Your task to perform on an android device: check out phone information Image 0: 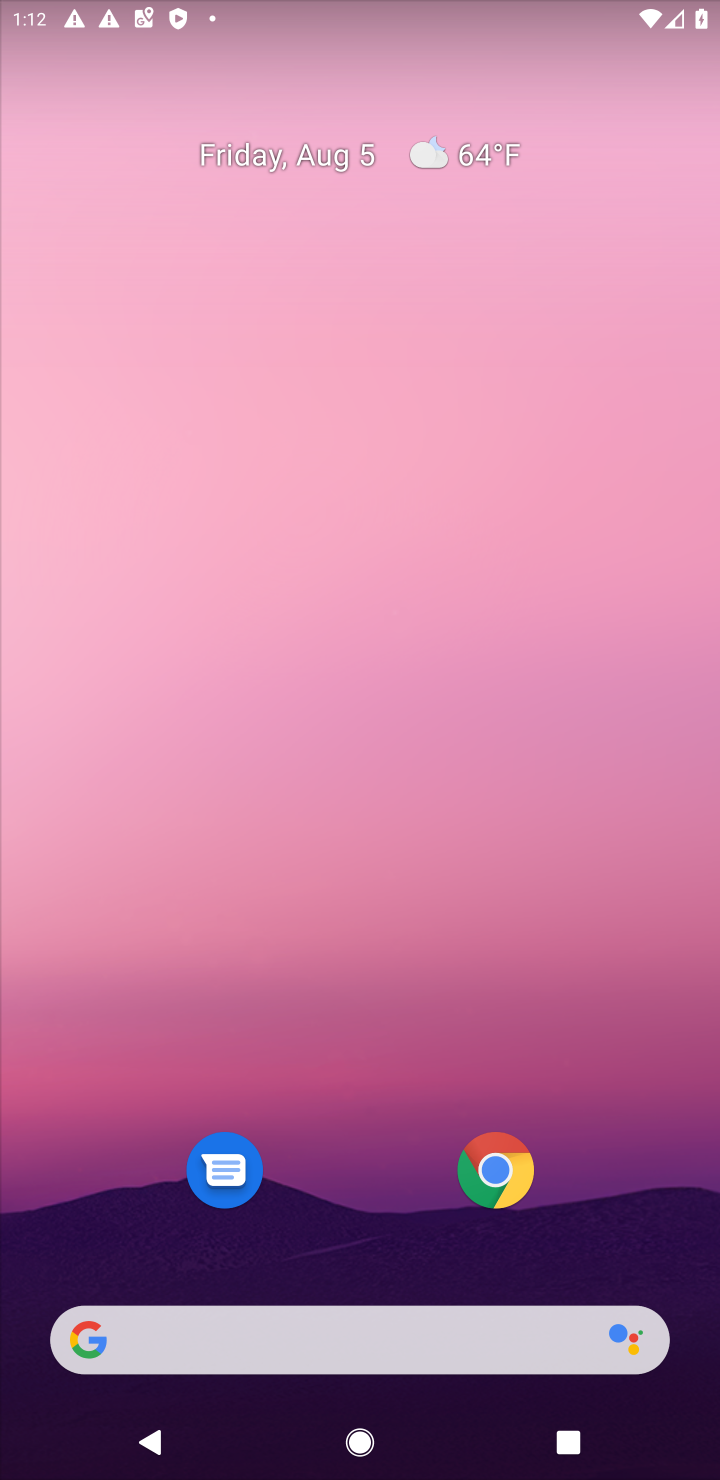
Step 0: drag from (295, 658) to (536, 181)
Your task to perform on an android device: check out phone information Image 1: 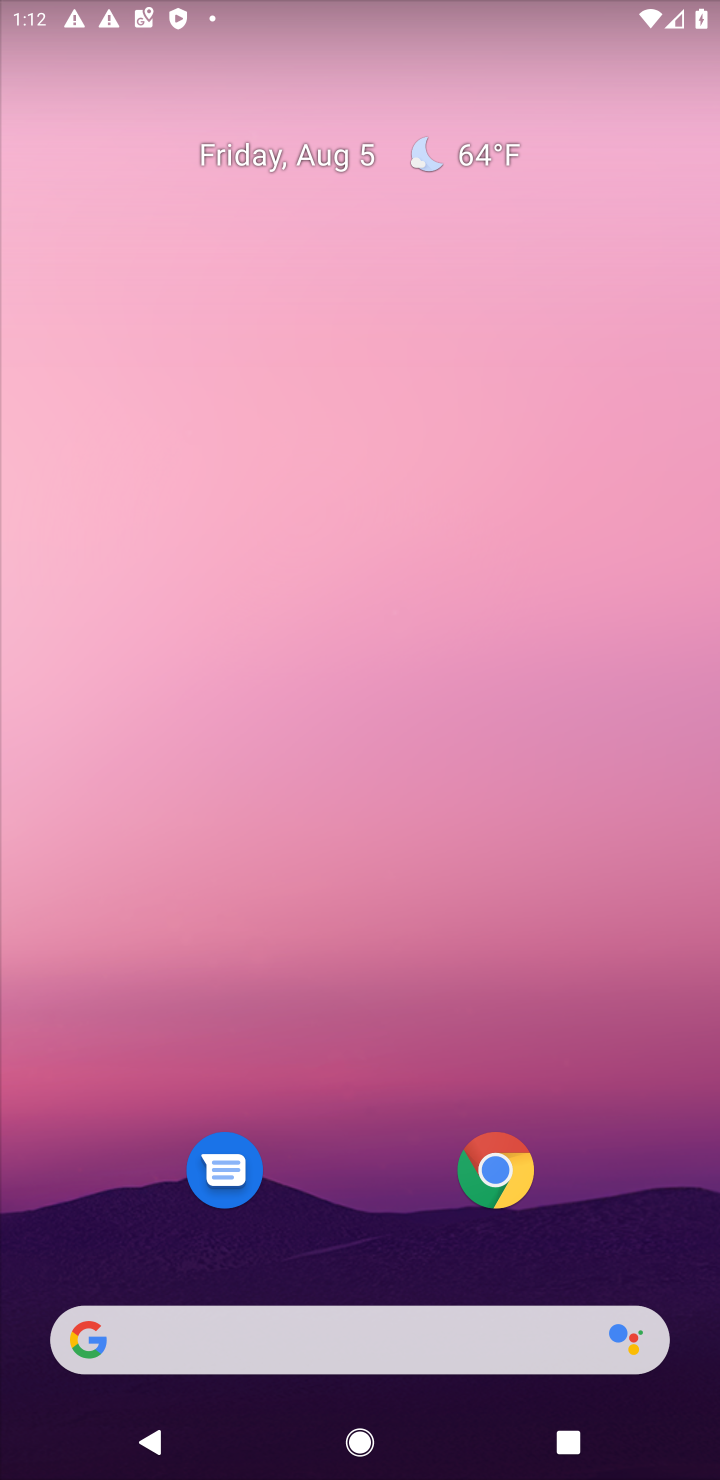
Step 1: drag from (51, 1172) to (499, 180)
Your task to perform on an android device: check out phone information Image 2: 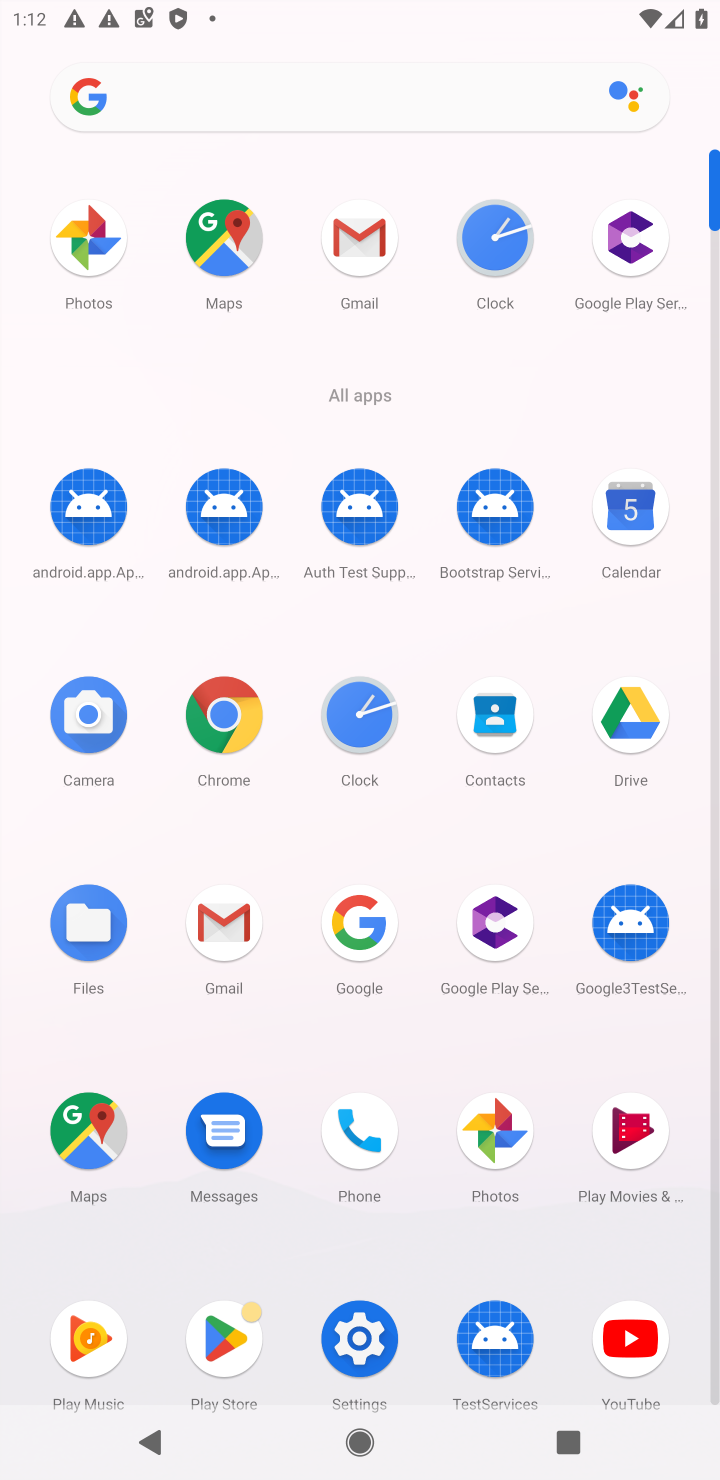
Step 2: click (372, 1145)
Your task to perform on an android device: check out phone information Image 3: 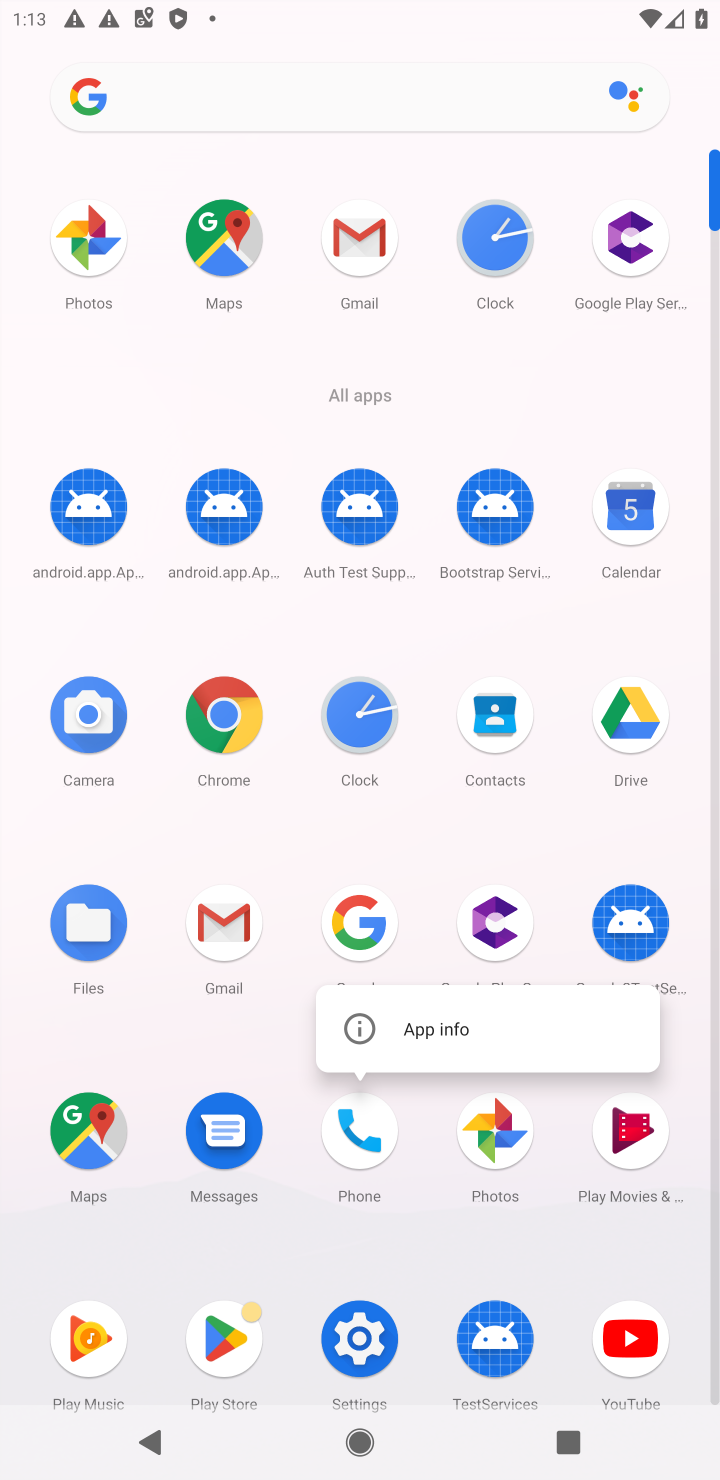
Step 3: click (341, 1126)
Your task to perform on an android device: check out phone information Image 4: 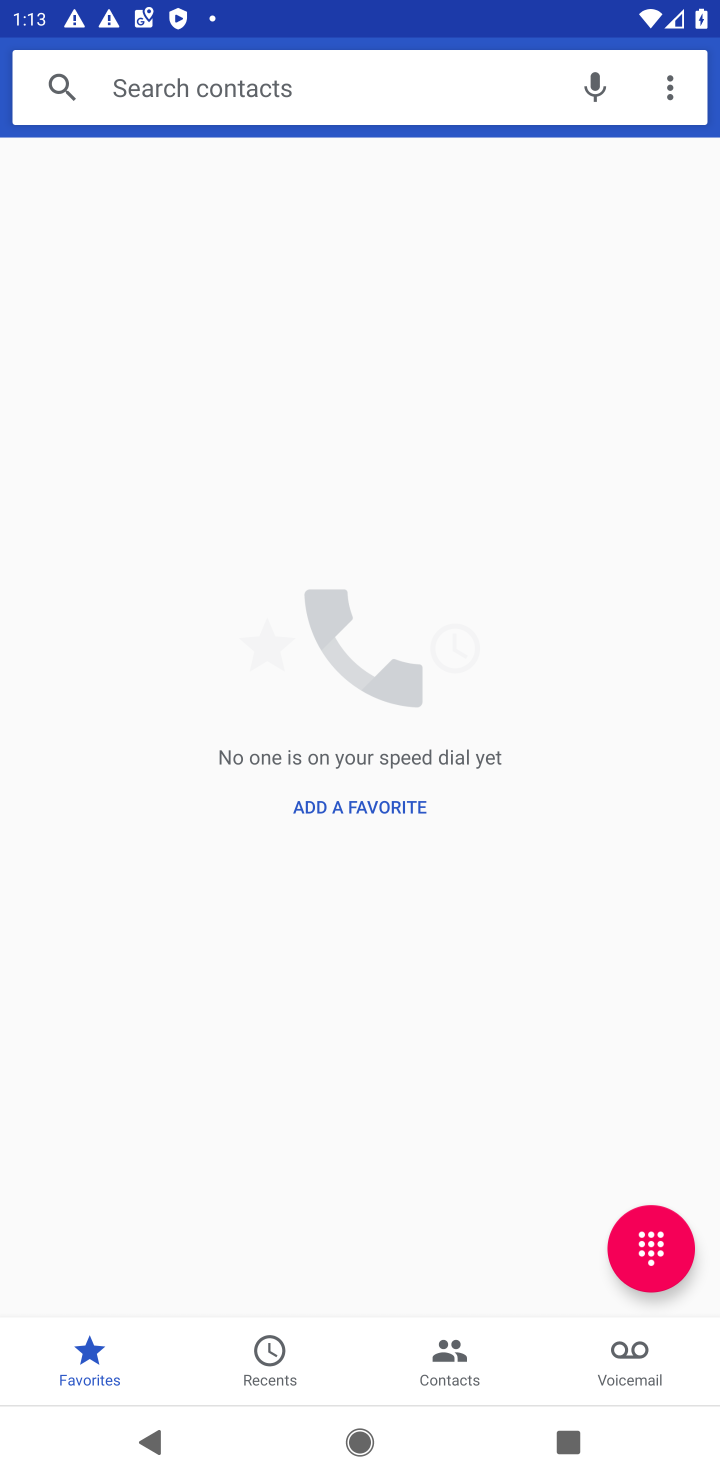
Step 4: click (448, 1367)
Your task to perform on an android device: check out phone information Image 5: 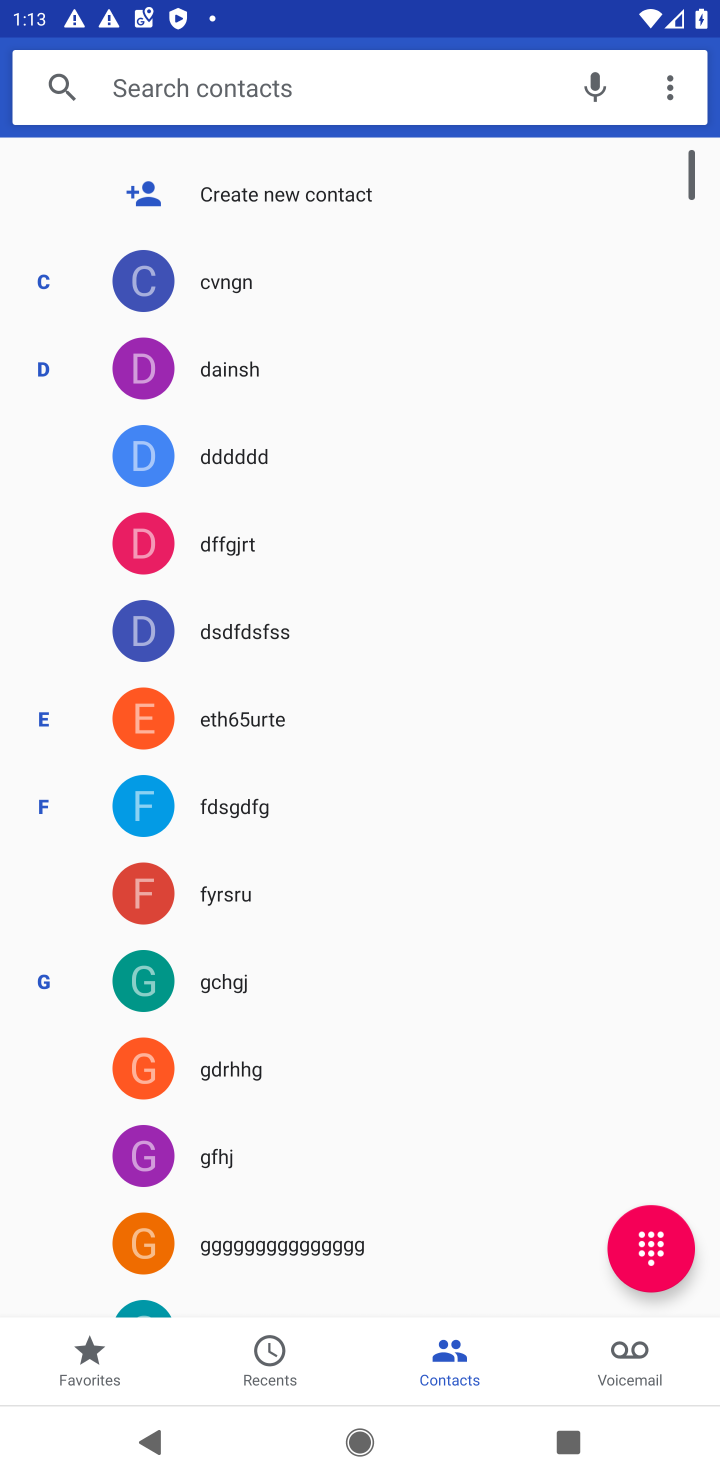
Step 5: task complete